Your task to perform on an android device: turn smart compose on in the gmail app Image 0: 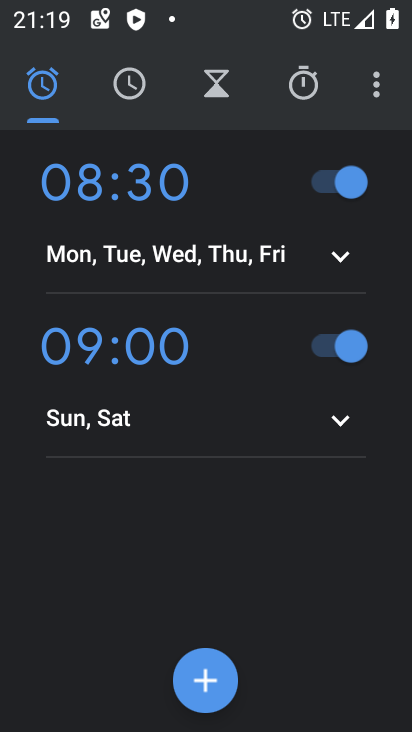
Step 0: press home button
Your task to perform on an android device: turn smart compose on in the gmail app Image 1: 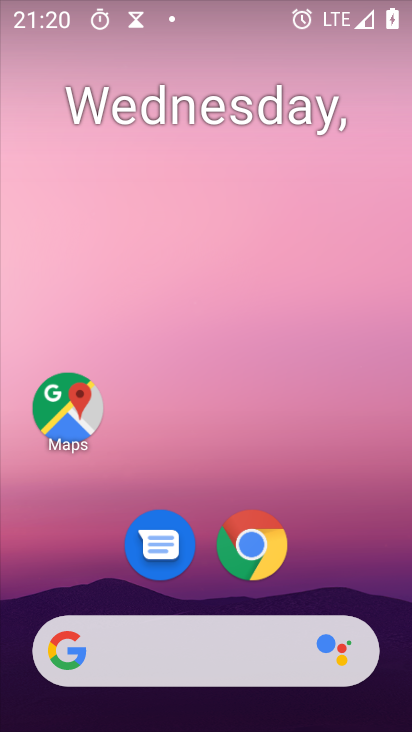
Step 1: drag from (160, 666) to (239, 357)
Your task to perform on an android device: turn smart compose on in the gmail app Image 2: 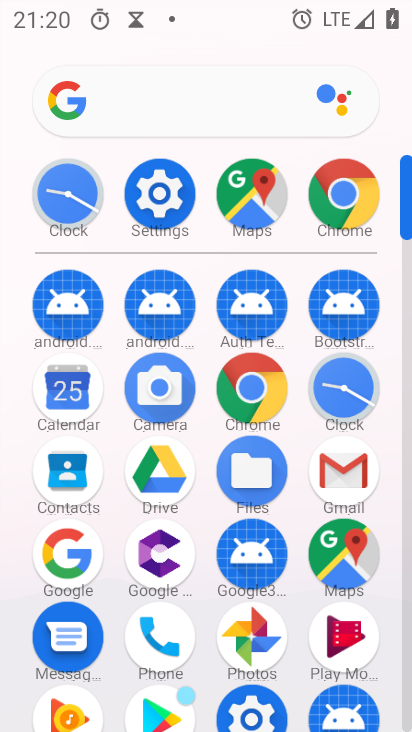
Step 2: click (333, 470)
Your task to perform on an android device: turn smart compose on in the gmail app Image 3: 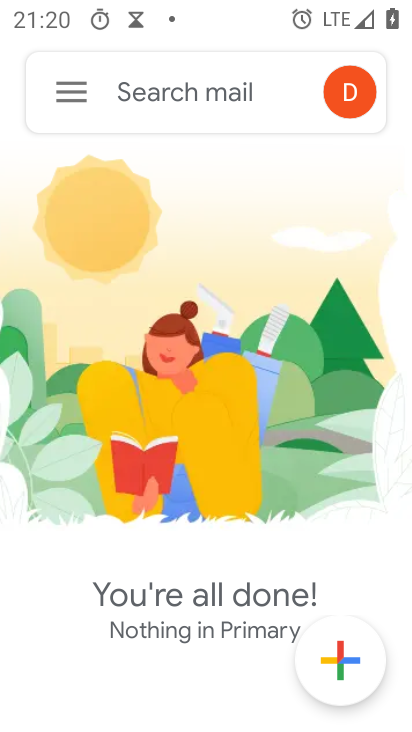
Step 3: click (74, 91)
Your task to perform on an android device: turn smart compose on in the gmail app Image 4: 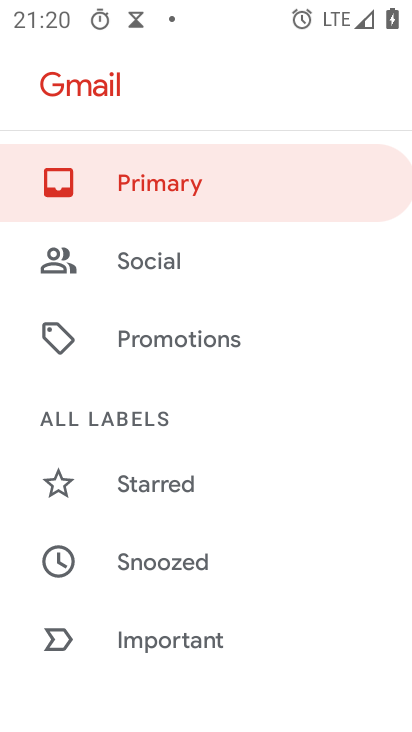
Step 4: drag from (242, 594) to (328, 187)
Your task to perform on an android device: turn smart compose on in the gmail app Image 5: 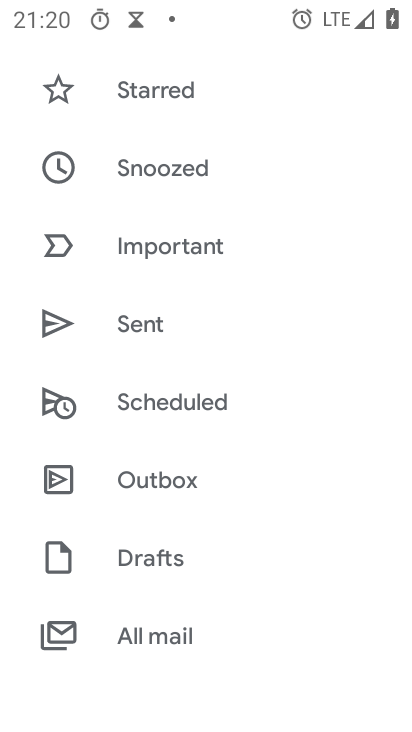
Step 5: drag from (244, 598) to (335, 170)
Your task to perform on an android device: turn smart compose on in the gmail app Image 6: 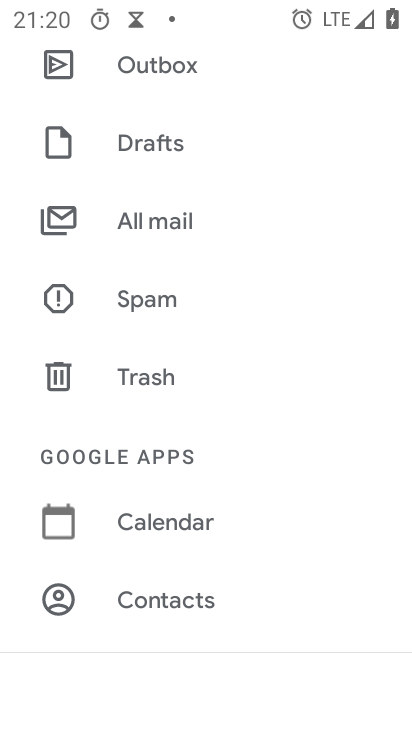
Step 6: drag from (238, 604) to (265, 303)
Your task to perform on an android device: turn smart compose on in the gmail app Image 7: 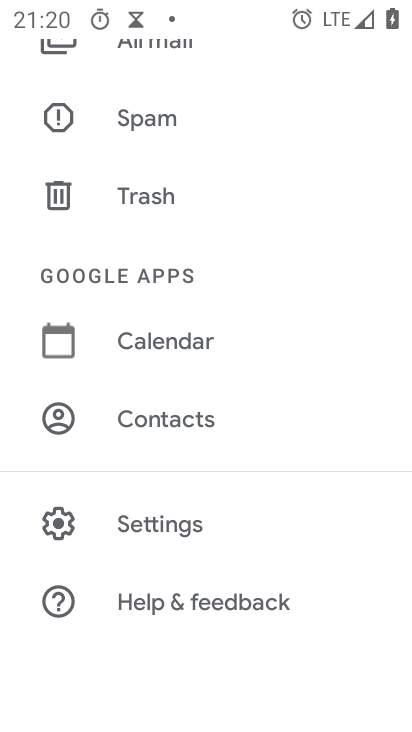
Step 7: click (168, 530)
Your task to perform on an android device: turn smart compose on in the gmail app Image 8: 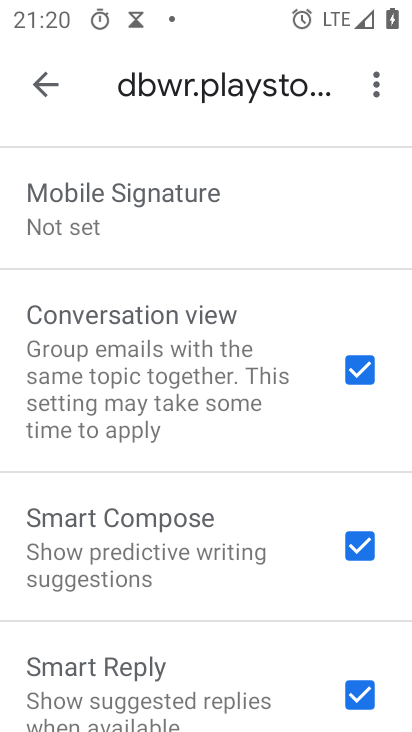
Step 8: task complete